Your task to perform on an android device: Go to sound settings Image 0: 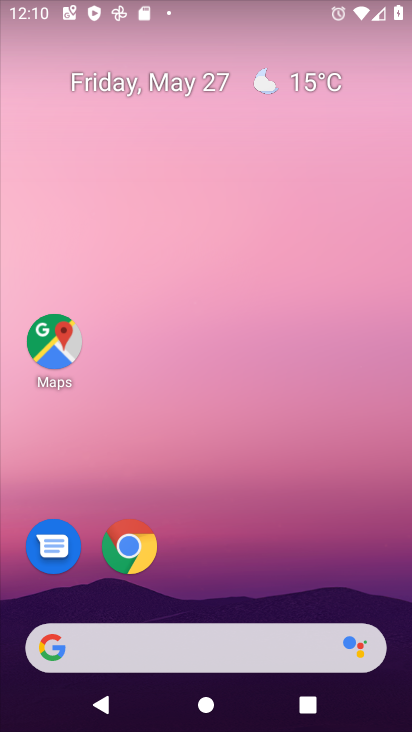
Step 0: drag from (246, 561) to (259, 130)
Your task to perform on an android device: Go to sound settings Image 1: 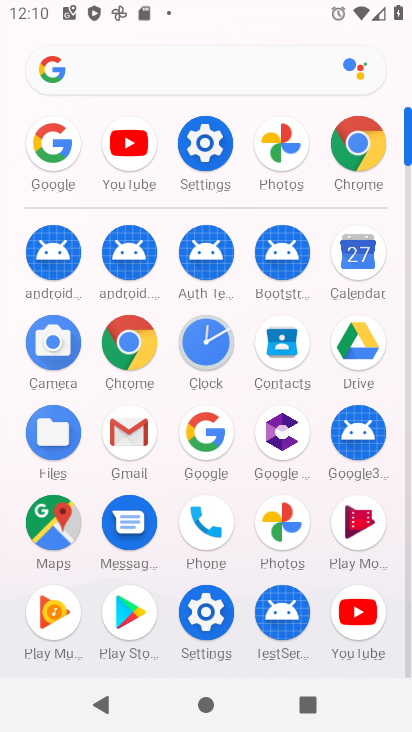
Step 1: click (210, 145)
Your task to perform on an android device: Go to sound settings Image 2: 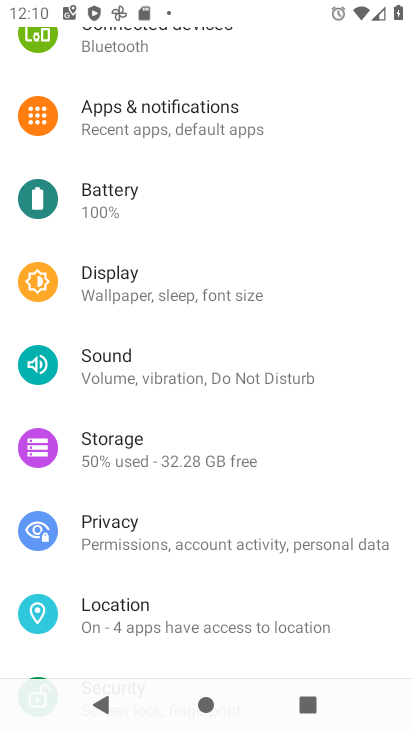
Step 2: click (154, 353)
Your task to perform on an android device: Go to sound settings Image 3: 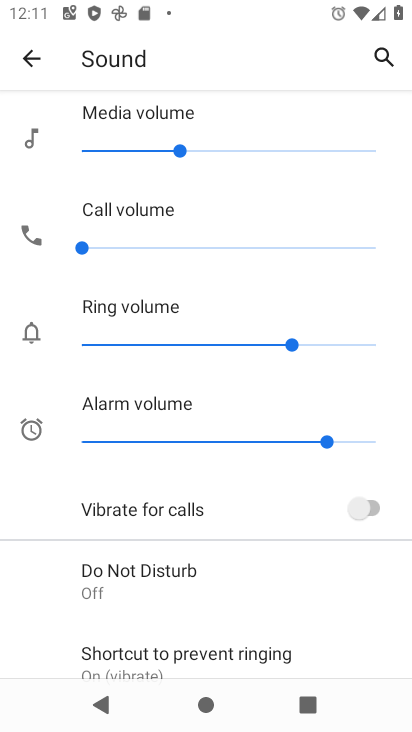
Step 3: task complete